Your task to perform on an android device: add a contact Image 0: 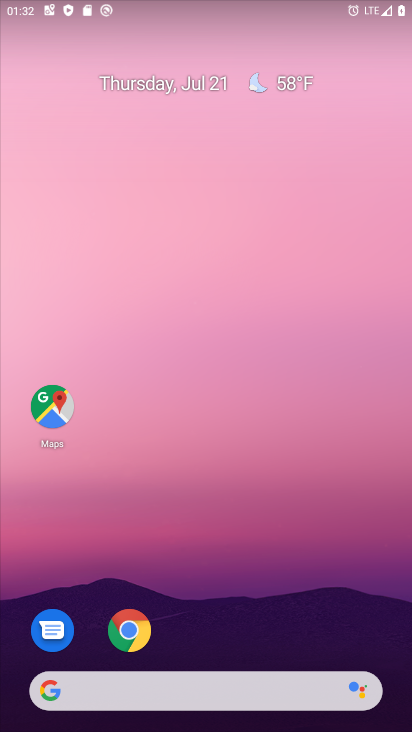
Step 0: drag from (211, 631) to (259, 128)
Your task to perform on an android device: add a contact Image 1: 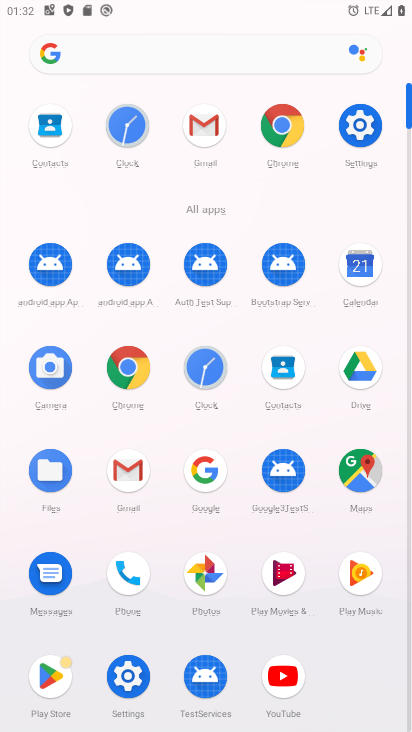
Step 1: click (280, 355)
Your task to perform on an android device: add a contact Image 2: 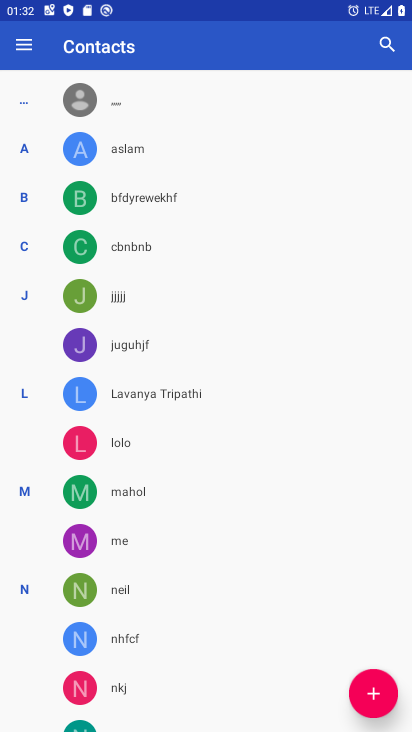
Step 2: click (391, 692)
Your task to perform on an android device: add a contact Image 3: 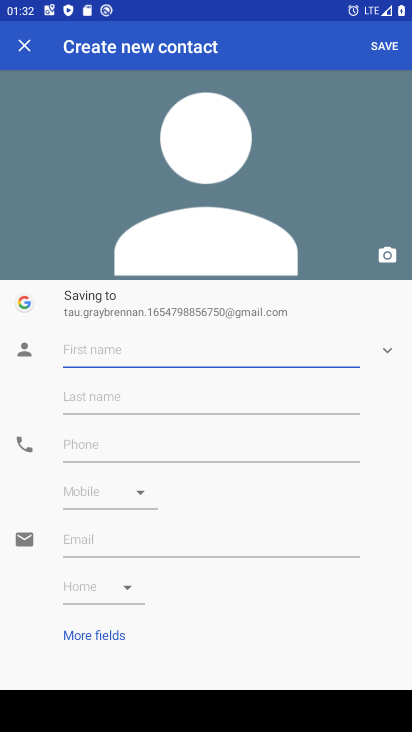
Step 3: type ""
Your task to perform on an android device: add a contact Image 4: 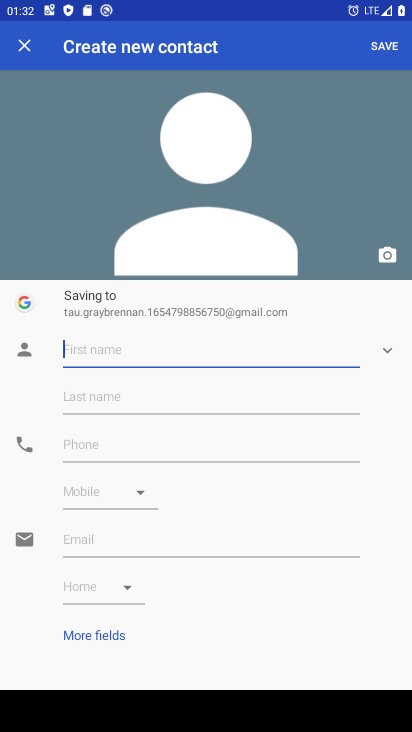
Step 4: type ",,,,,,"
Your task to perform on an android device: add a contact Image 5: 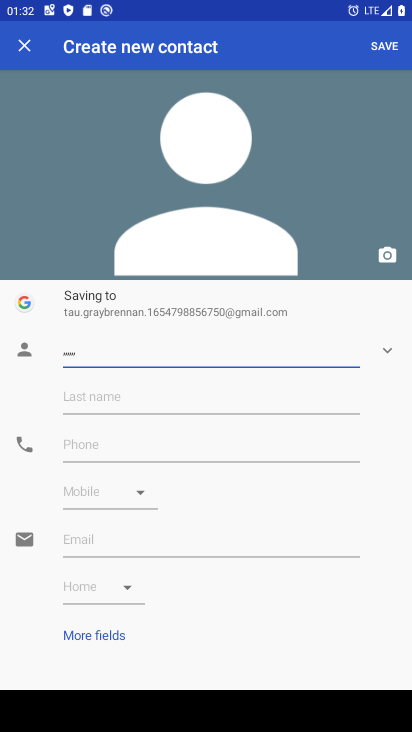
Step 5: click (76, 438)
Your task to perform on an android device: add a contact Image 6: 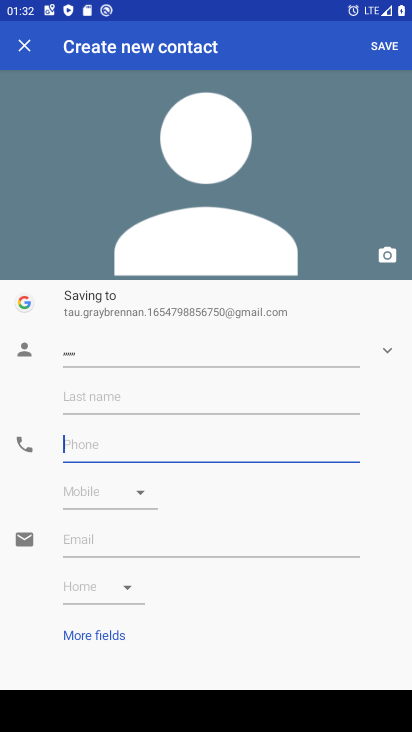
Step 6: type "98765456"
Your task to perform on an android device: add a contact Image 7: 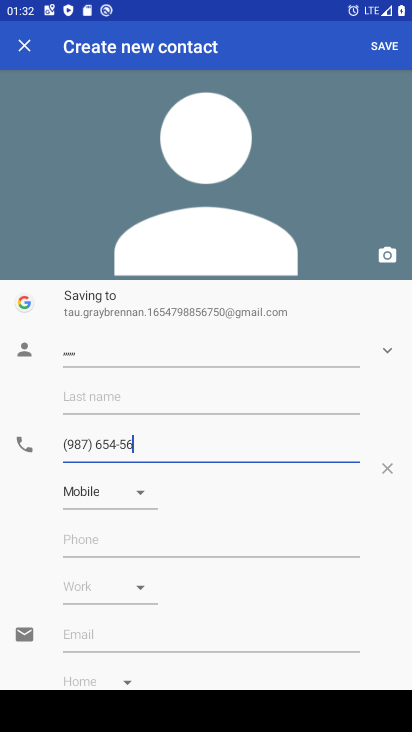
Step 7: click (394, 49)
Your task to perform on an android device: add a contact Image 8: 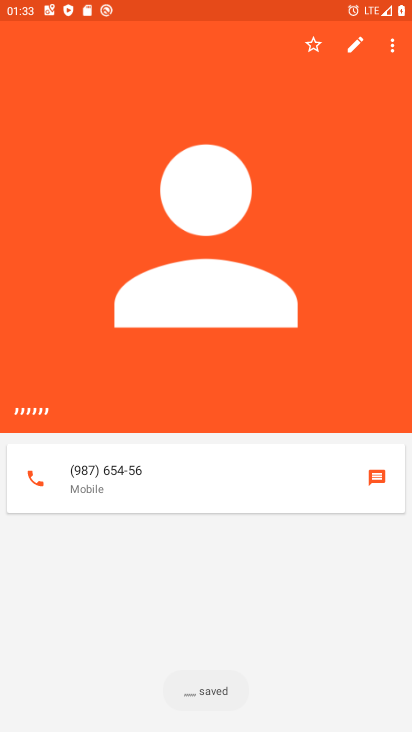
Step 8: task complete